Your task to perform on an android device: turn on improve location accuracy Image 0: 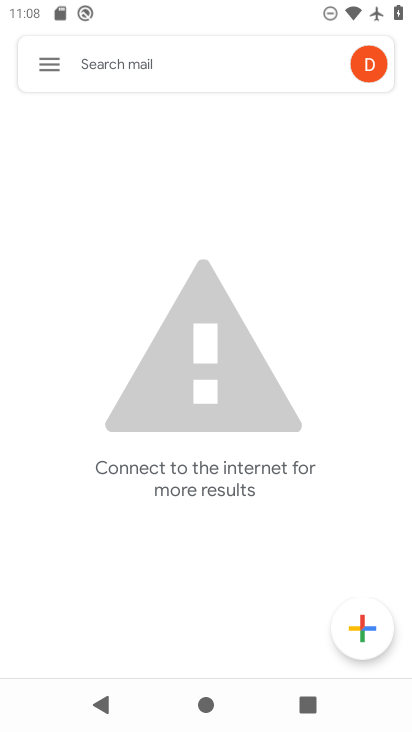
Step 0: drag from (255, 488) to (296, 103)
Your task to perform on an android device: turn on improve location accuracy Image 1: 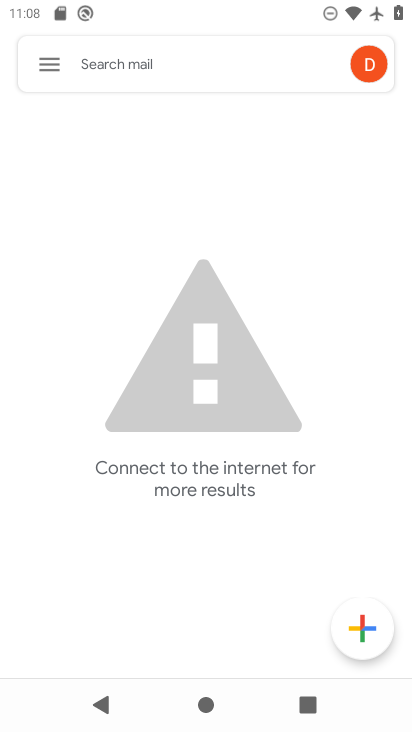
Step 1: drag from (250, 530) to (290, 183)
Your task to perform on an android device: turn on improve location accuracy Image 2: 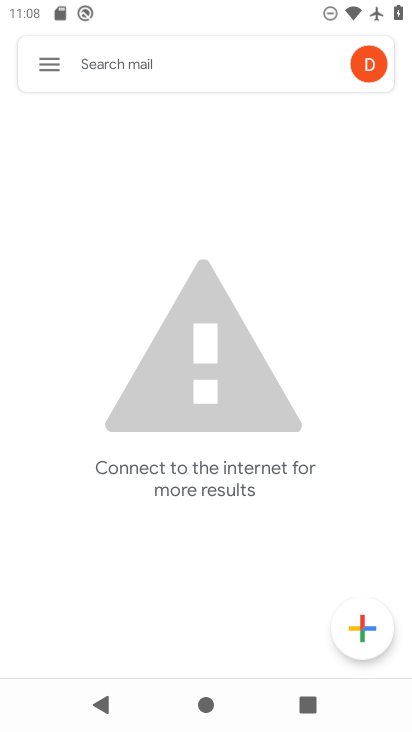
Step 2: click (36, 81)
Your task to perform on an android device: turn on improve location accuracy Image 3: 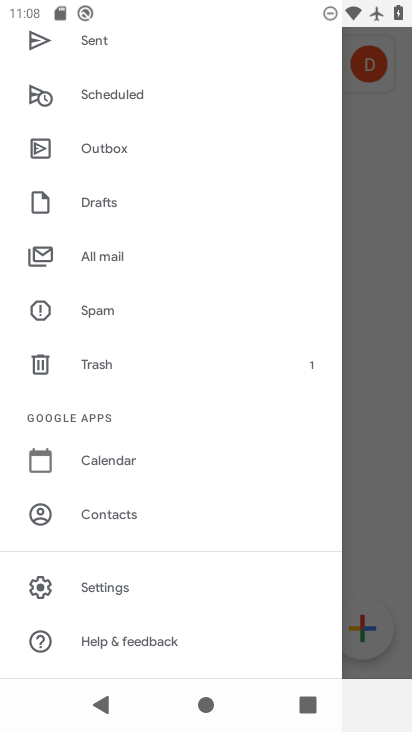
Step 3: click (250, 192)
Your task to perform on an android device: turn on improve location accuracy Image 4: 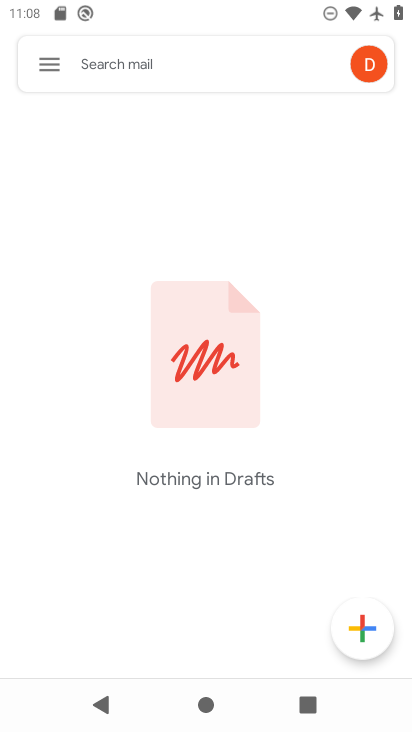
Step 4: click (53, 70)
Your task to perform on an android device: turn on improve location accuracy Image 5: 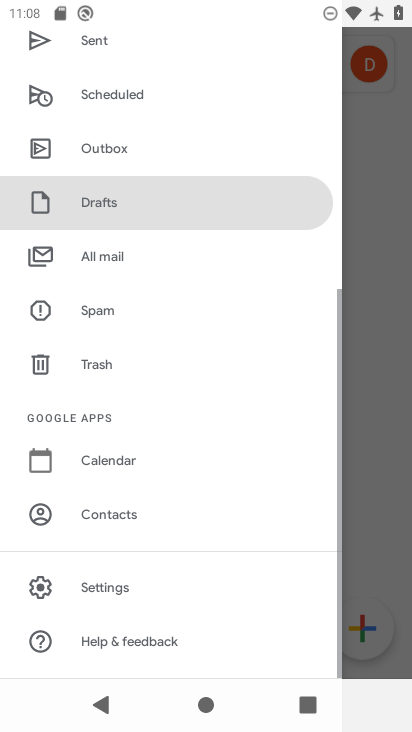
Step 5: drag from (190, 519) to (216, 52)
Your task to perform on an android device: turn on improve location accuracy Image 6: 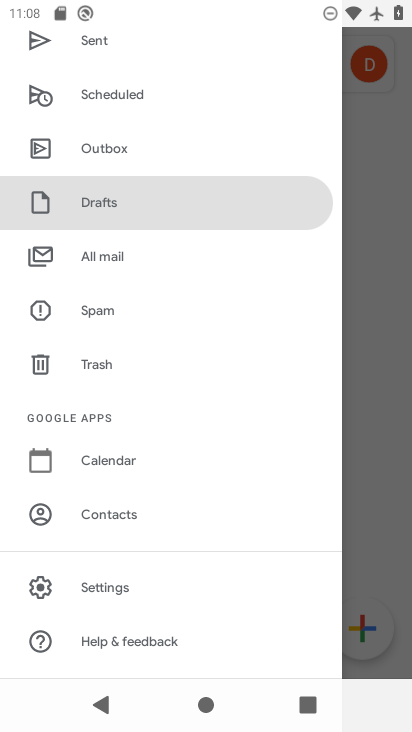
Step 6: press home button
Your task to perform on an android device: turn on improve location accuracy Image 7: 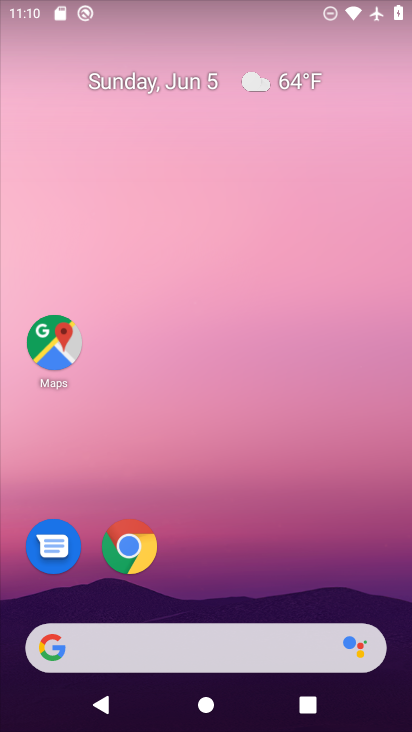
Step 7: drag from (182, 563) to (230, 118)
Your task to perform on an android device: turn on improve location accuracy Image 8: 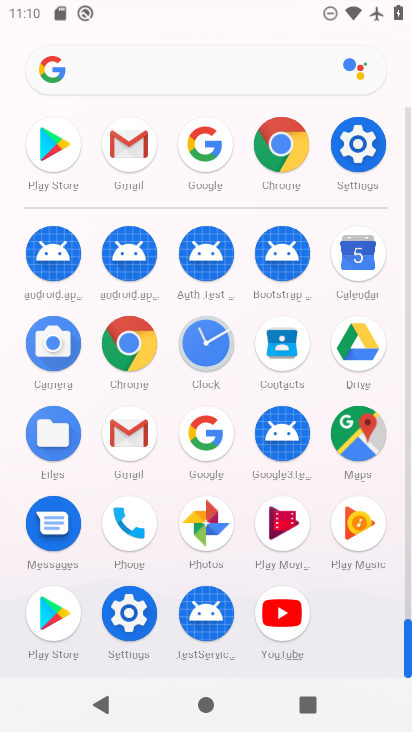
Step 8: click (359, 126)
Your task to perform on an android device: turn on improve location accuracy Image 9: 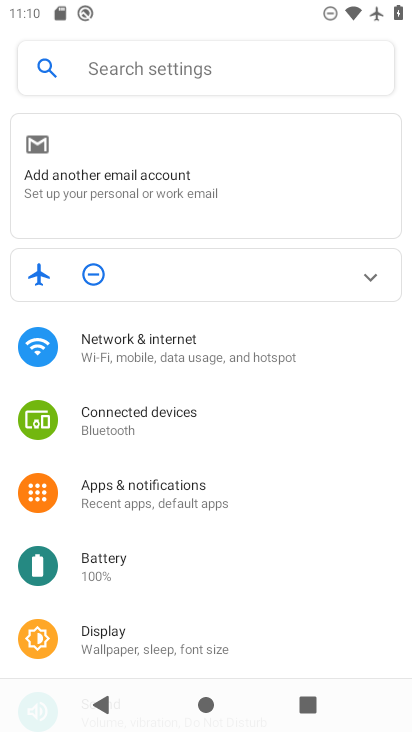
Step 9: drag from (172, 537) to (257, 32)
Your task to perform on an android device: turn on improve location accuracy Image 10: 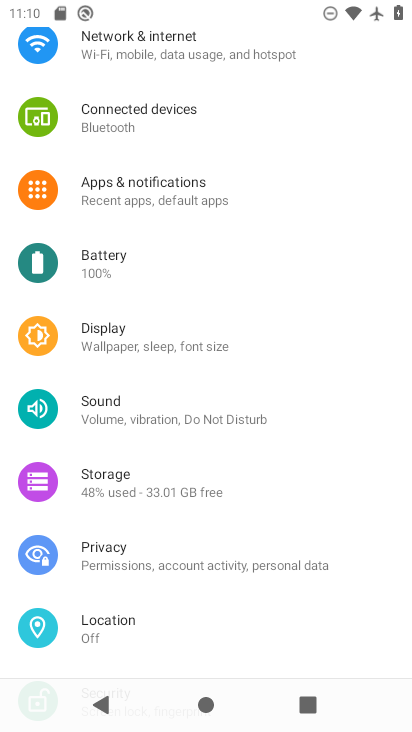
Step 10: click (127, 614)
Your task to perform on an android device: turn on improve location accuracy Image 11: 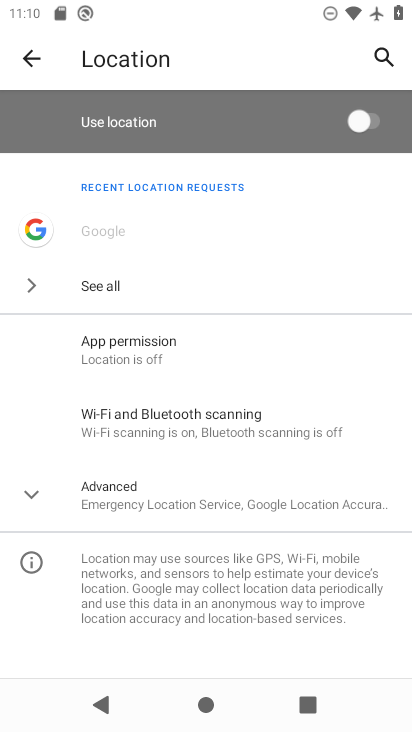
Step 11: drag from (173, 562) to (262, 167)
Your task to perform on an android device: turn on improve location accuracy Image 12: 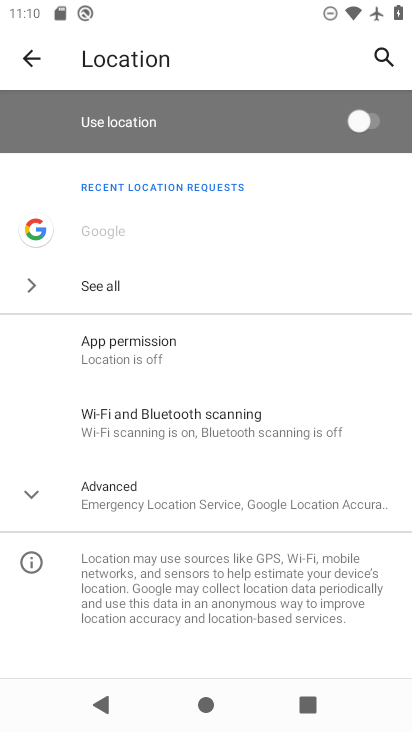
Step 12: click (161, 501)
Your task to perform on an android device: turn on improve location accuracy Image 13: 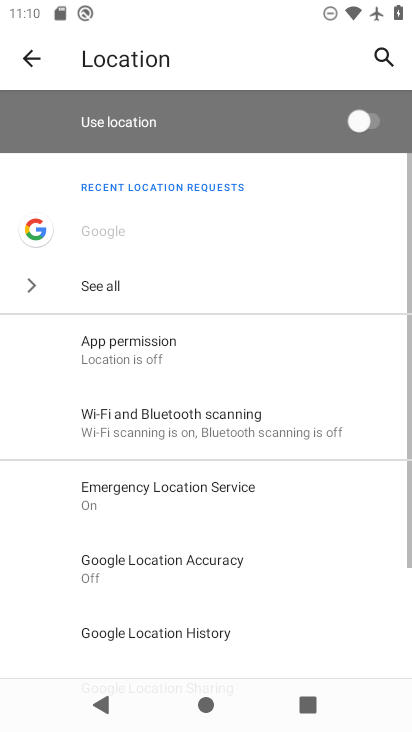
Step 13: drag from (177, 495) to (314, 121)
Your task to perform on an android device: turn on improve location accuracy Image 14: 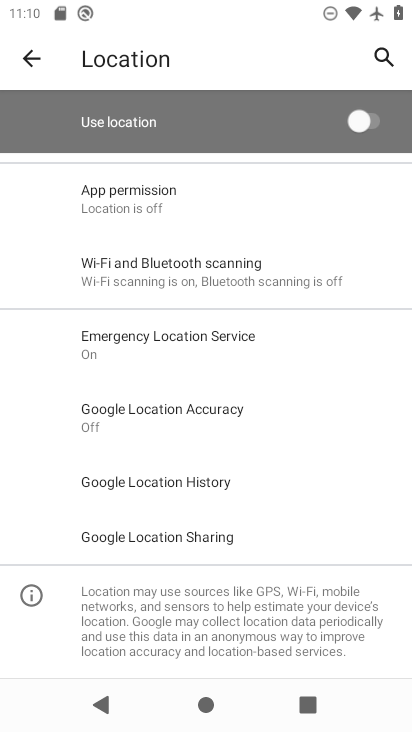
Step 14: click (150, 416)
Your task to perform on an android device: turn on improve location accuracy Image 15: 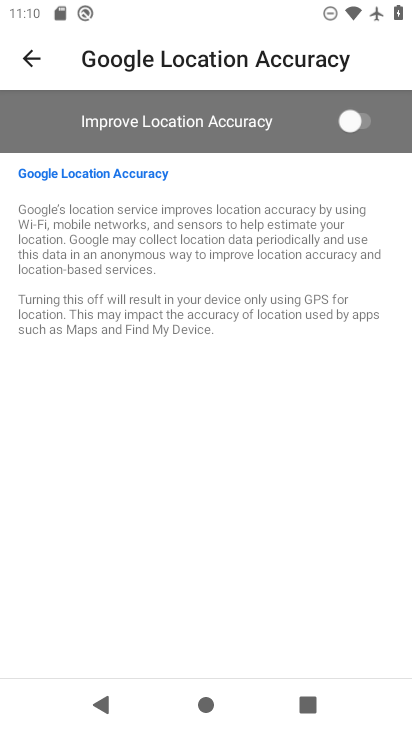
Step 15: click (351, 115)
Your task to perform on an android device: turn on improve location accuracy Image 16: 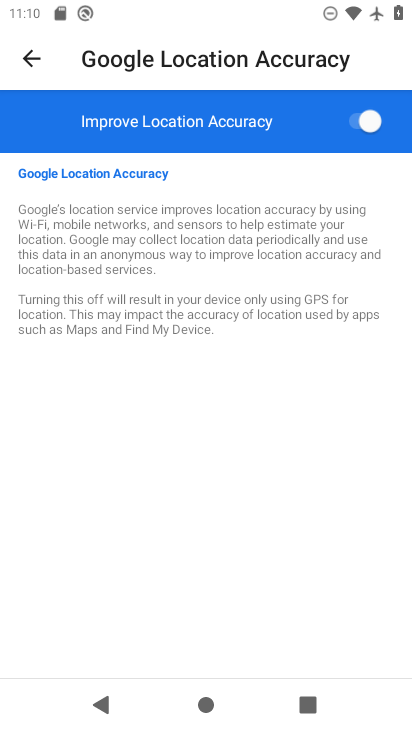
Step 16: task complete